Your task to perform on an android device: Open Chrome and go to settings Image 0: 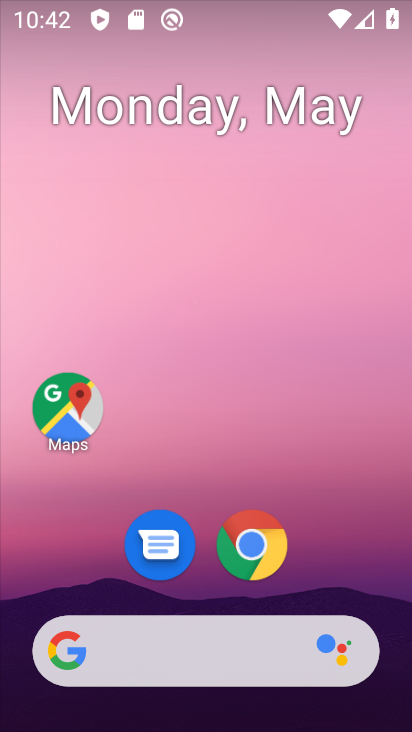
Step 0: drag from (222, 670) to (329, 48)
Your task to perform on an android device: Open Chrome and go to settings Image 1: 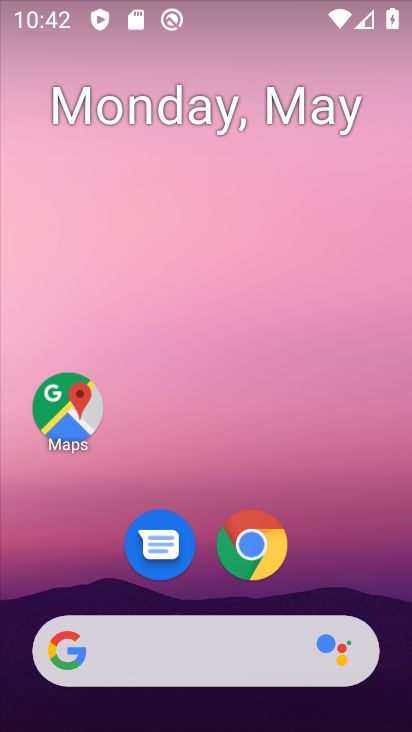
Step 1: drag from (193, 686) to (168, 10)
Your task to perform on an android device: Open Chrome and go to settings Image 2: 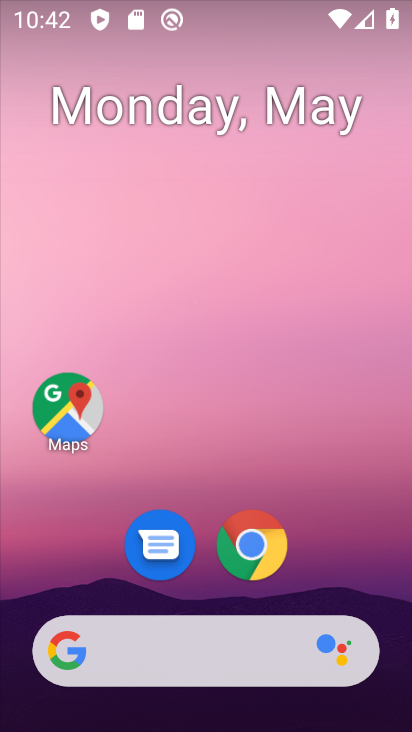
Step 2: drag from (239, 685) to (251, 23)
Your task to perform on an android device: Open Chrome and go to settings Image 3: 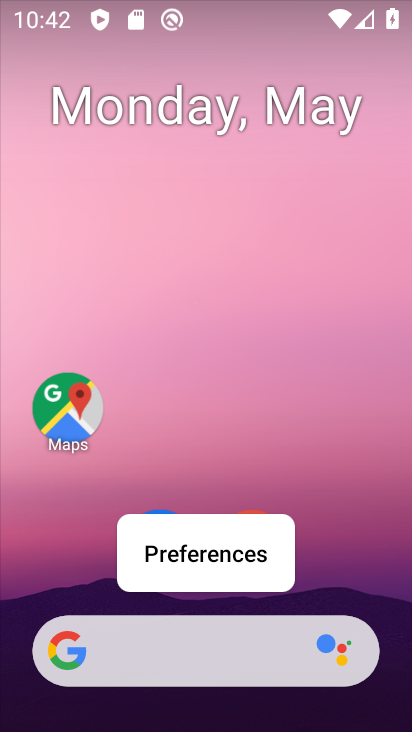
Step 3: click (291, 388)
Your task to perform on an android device: Open Chrome and go to settings Image 4: 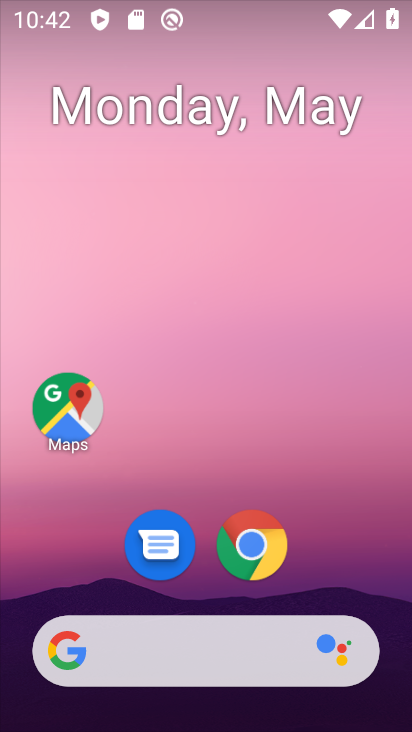
Step 4: click (252, 559)
Your task to perform on an android device: Open Chrome and go to settings Image 5: 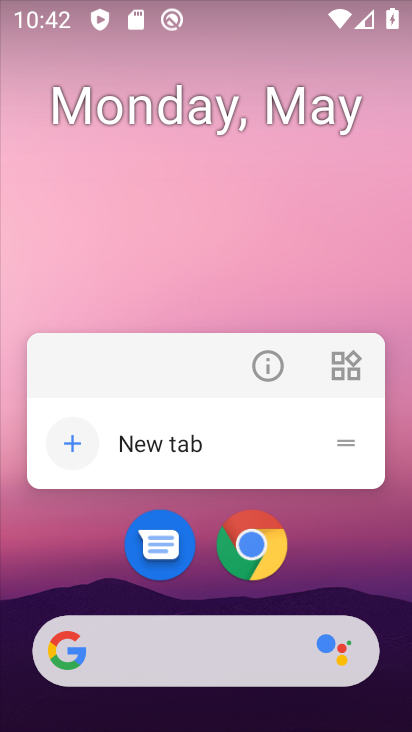
Step 5: click (251, 526)
Your task to perform on an android device: Open Chrome and go to settings Image 6: 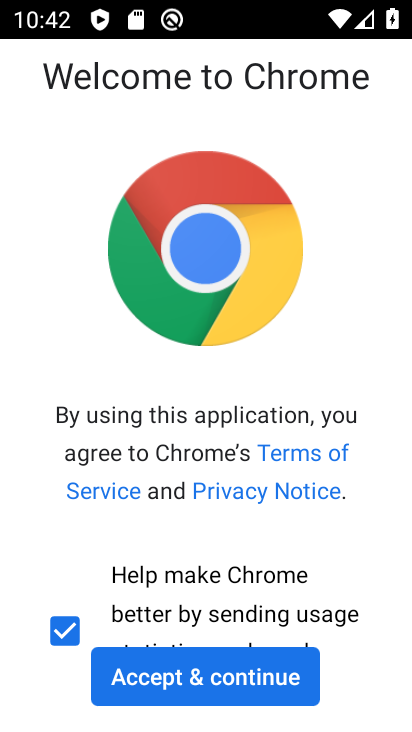
Step 6: click (198, 669)
Your task to perform on an android device: Open Chrome and go to settings Image 7: 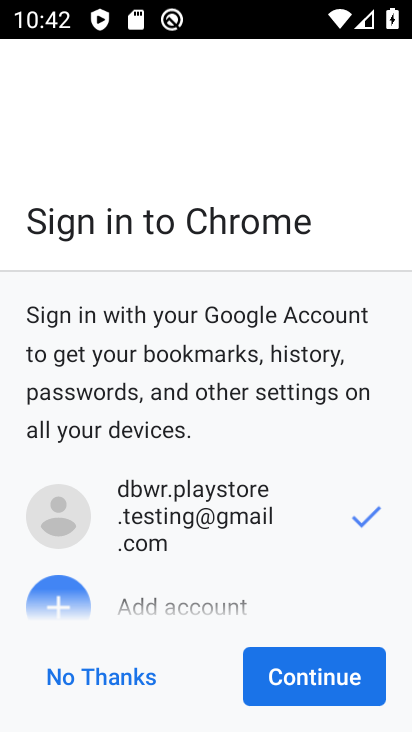
Step 7: click (294, 667)
Your task to perform on an android device: Open Chrome and go to settings Image 8: 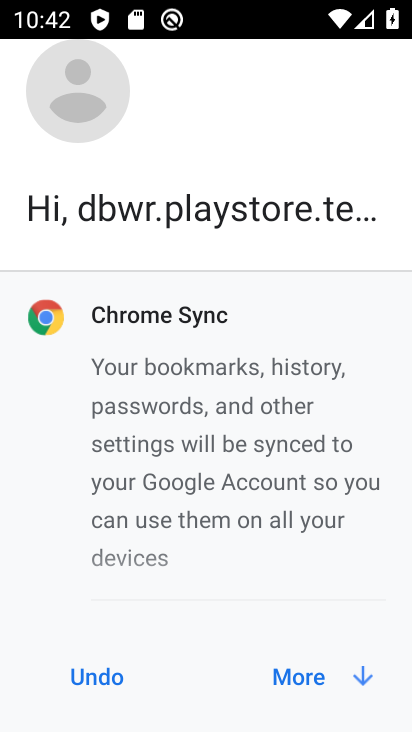
Step 8: click (362, 675)
Your task to perform on an android device: Open Chrome and go to settings Image 9: 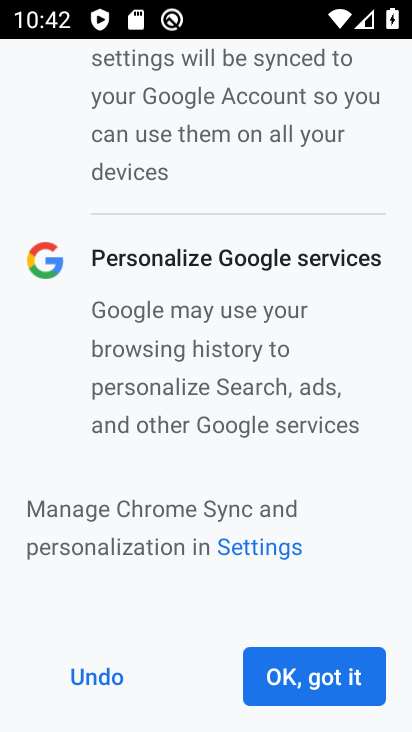
Step 9: click (327, 680)
Your task to perform on an android device: Open Chrome and go to settings Image 10: 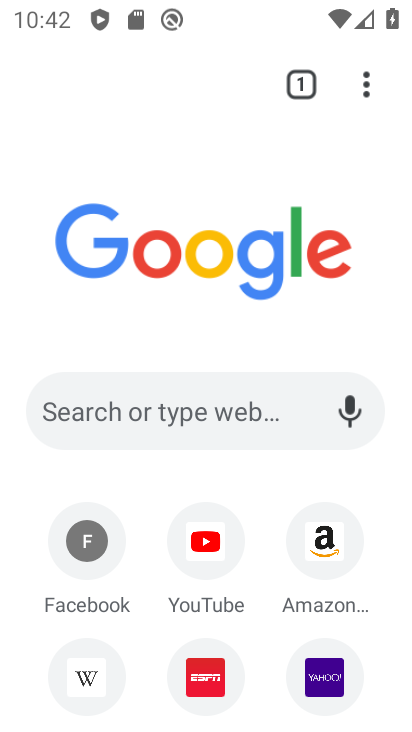
Step 10: click (361, 92)
Your task to perform on an android device: Open Chrome and go to settings Image 11: 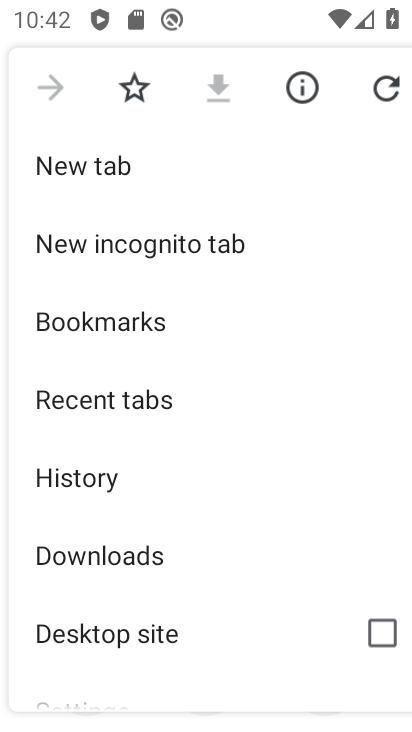
Step 11: drag from (84, 695) to (132, 422)
Your task to perform on an android device: Open Chrome and go to settings Image 12: 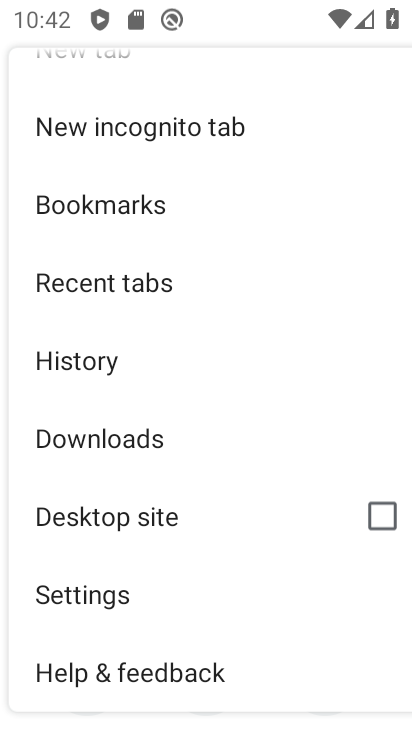
Step 12: click (75, 584)
Your task to perform on an android device: Open Chrome and go to settings Image 13: 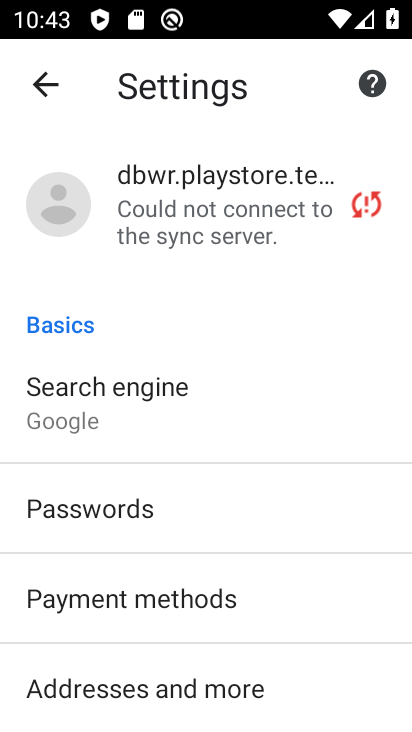
Step 13: task complete